Your task to perform on an android device: When is my next appointment? Image 0: 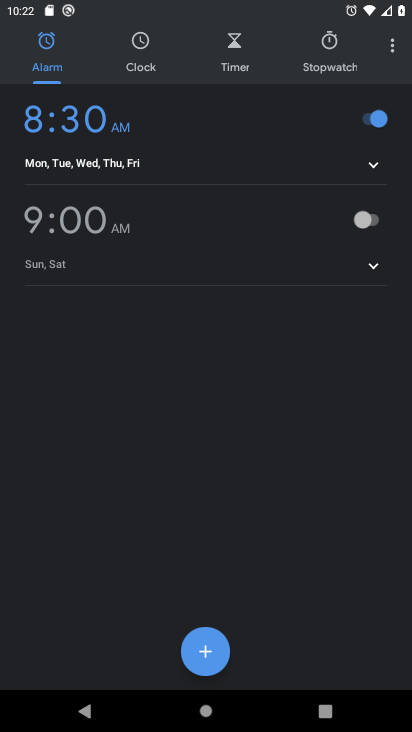
Step 0: press back button
Your task to perform on an android device: When is my next appointment? Image 1: 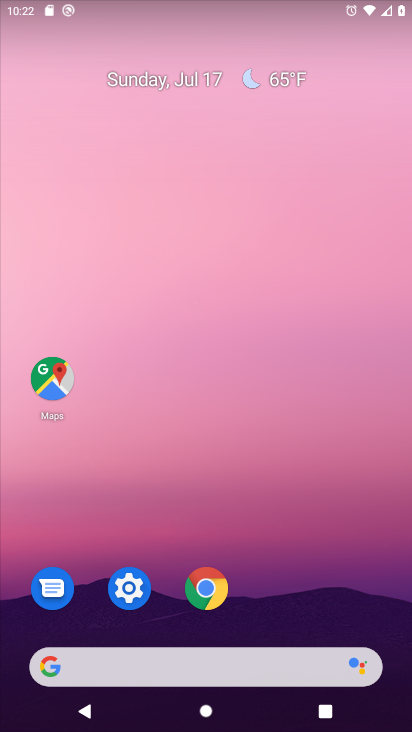
Step 1: drag from (262, 395) to (234, 80)
Your task to perform on an android device: When is my next appointment? Image 2: 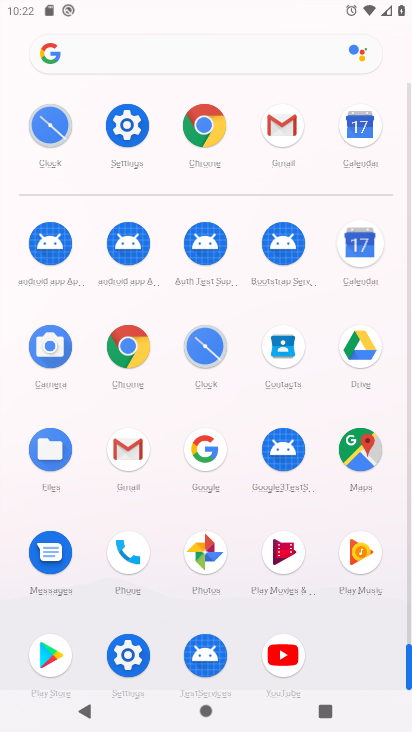
Step 2: click (344, 242)
Your task to perform on an android device: When is my next appointment? Image 3: 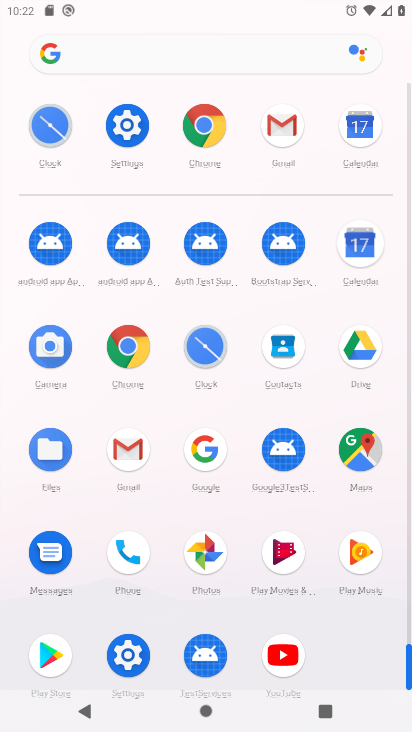
Step 3: click (352, 239)
Your task to perform on an android device: When is my next appointment? Image 4: 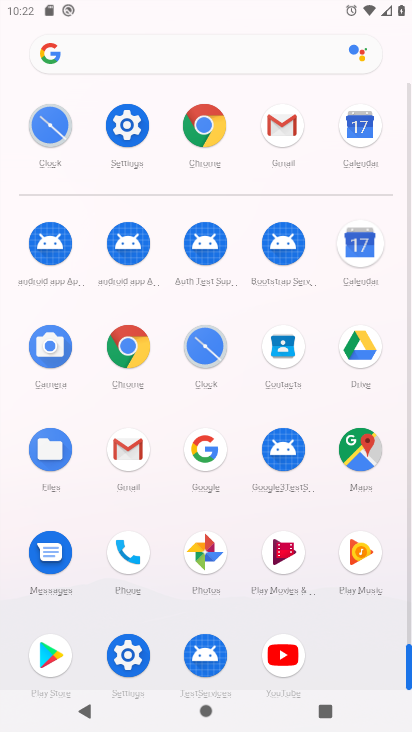
Step 4: click (352, 239)
Your task to perform on an android device: When is my next appointment? Image 5: 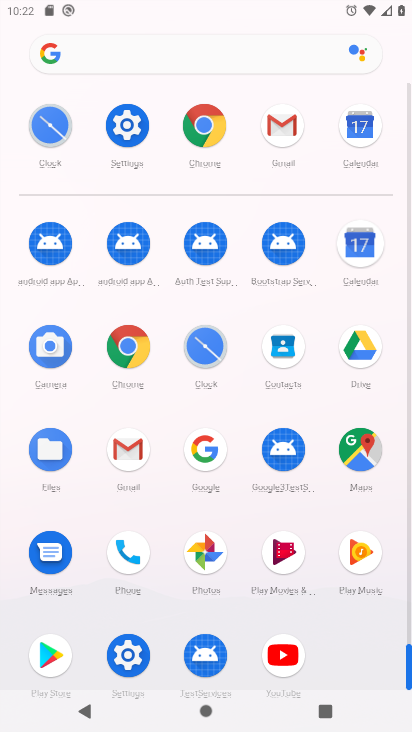
Step 5: click (353, 239)
Your task to perform on an android device: When is my next appointment? Image 6: 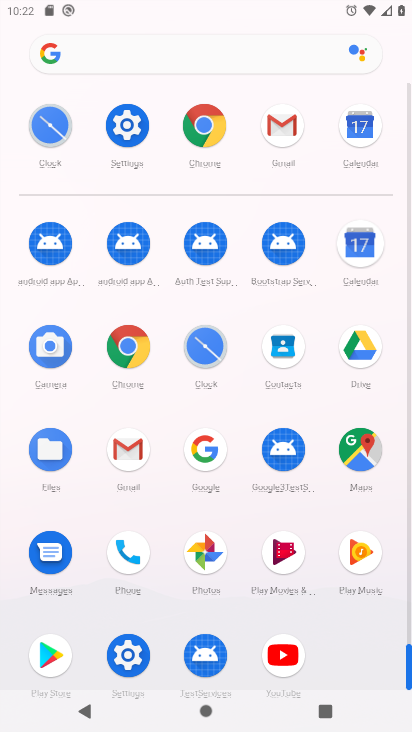
Step 6: click (355, 239)
Your task to perform on an android device: When is my next appointment? Image 7: 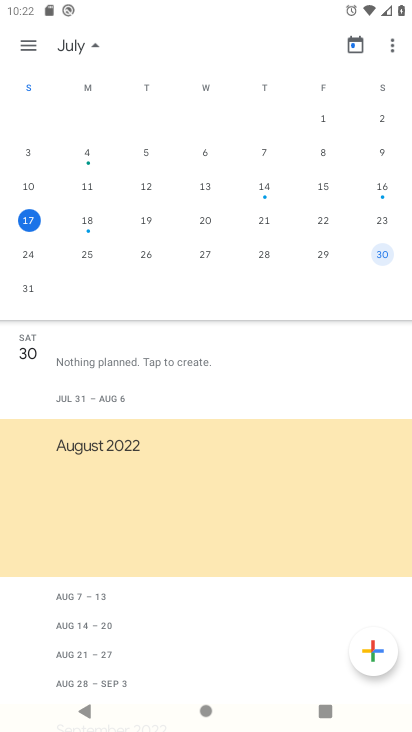
Step 7: click (270, 221)
Your task to perform on an android device: When is my next appointment? Image 8: 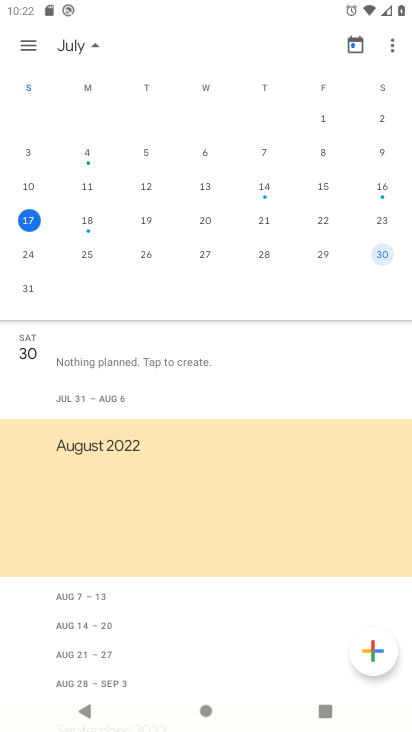
Step 8: click (265, 220)
Your task to perform on an android device: When is my next appointment? Image 9: 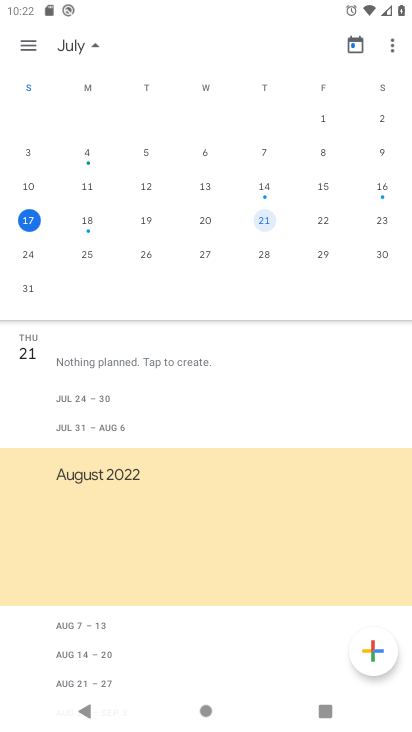
Step 9: click (262, 215)
Your task to perform on an android device: When is my next appointment? Image 10: 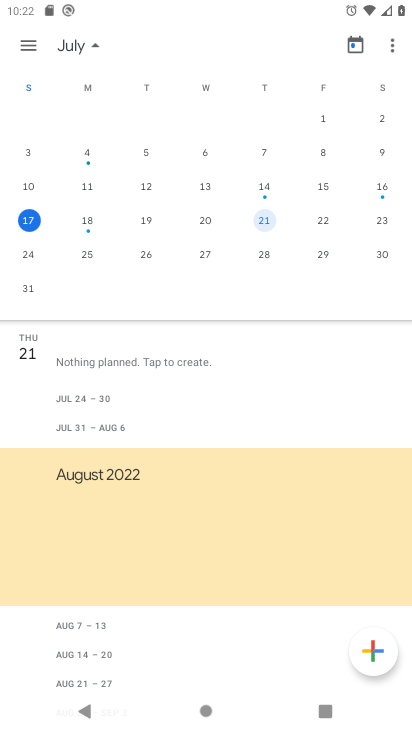
Step 10: click (262, 210)
Your task to perform on an android device: When is my next appointment? Image 11: 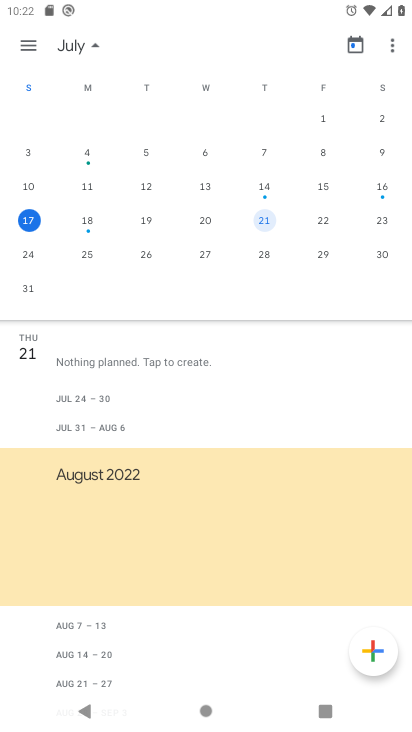
Step 11: click (263, 210)
Your task to perform on an android device: When is my next appointment? Image 12: 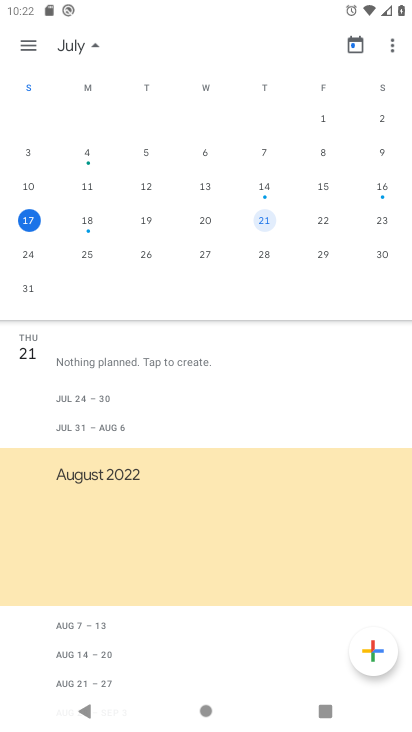
Step 12: task complete